Your task to perform on an android device: star an email in the gmail app Image 0: 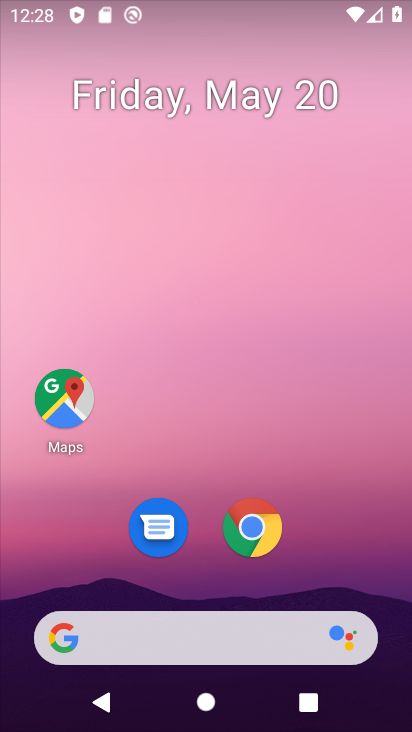
Step 0: drag from (396, 518) to (388, 247)
Your task to perform on an android device: star an email in the gmail app Image 1: 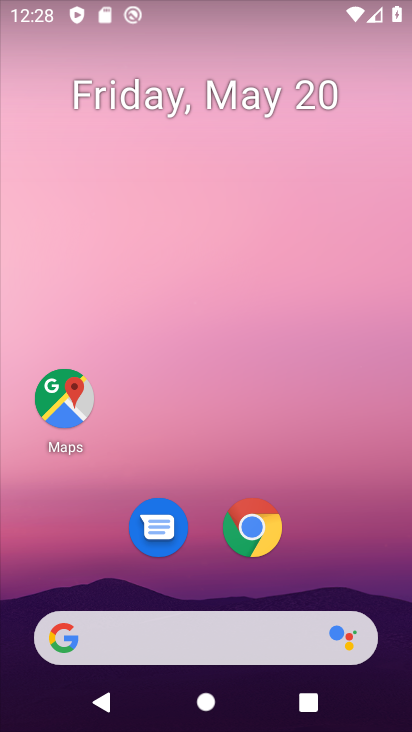
Step 1: drag from (397, 488) to (355, 206)
Your task to perform on an android device: star an email in the gmail app Image 2: 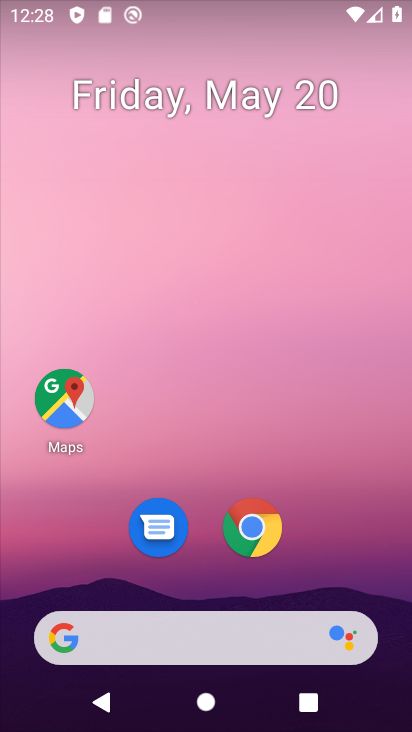
Step 2: drag from (390, 559) to (370, 241)
Your task to perform on an android device: star an email in the gmail app Image 3: 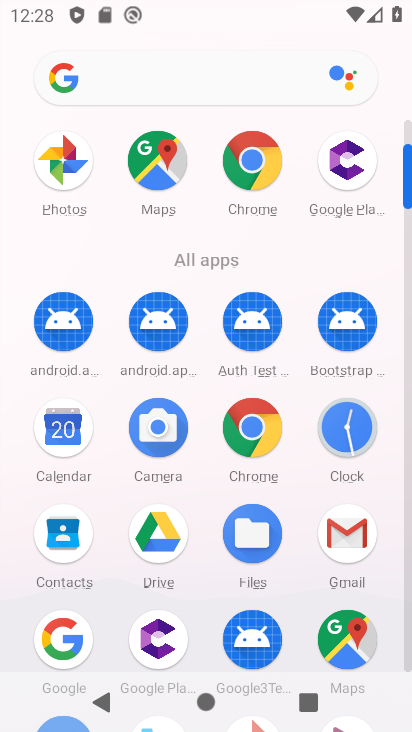
Step 3: click (349, 537)
Your task to perform on an android device: star an email in the gmail app Image 4: 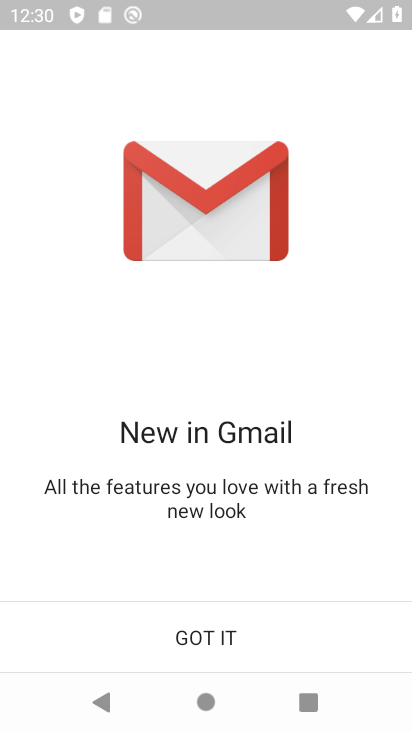
Step 4: click (203, 643)
Your task to perform on an android device: star an email in the gmail app Image 5: 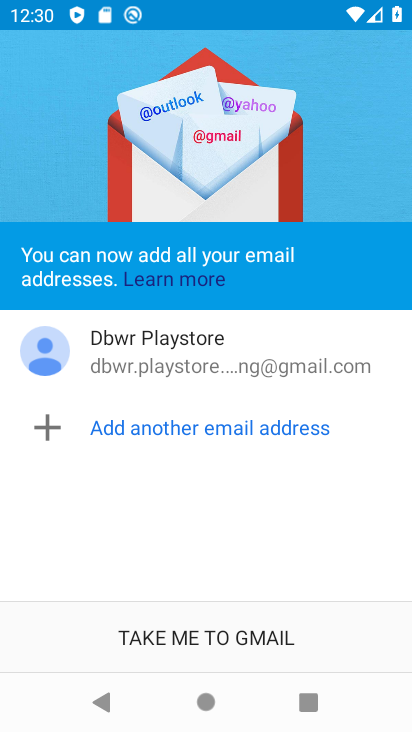
Step 5: click (204, 626)
Your task to perform on an android device: star an email in the gmail app Image 6: 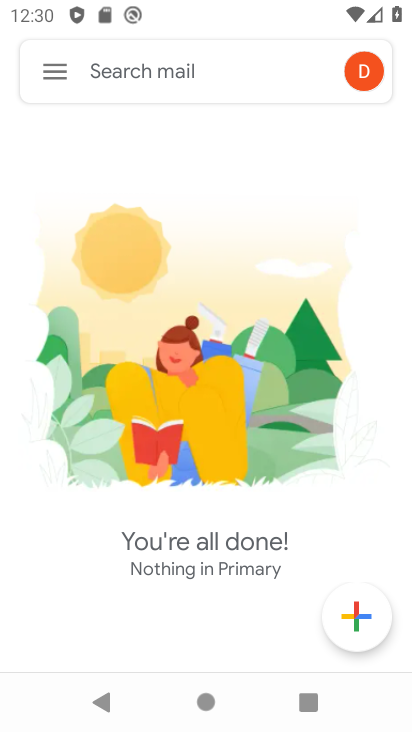
Step 6: click (49, 71)
Your task to perform on an android device: star an email in the gmail app Image 7: 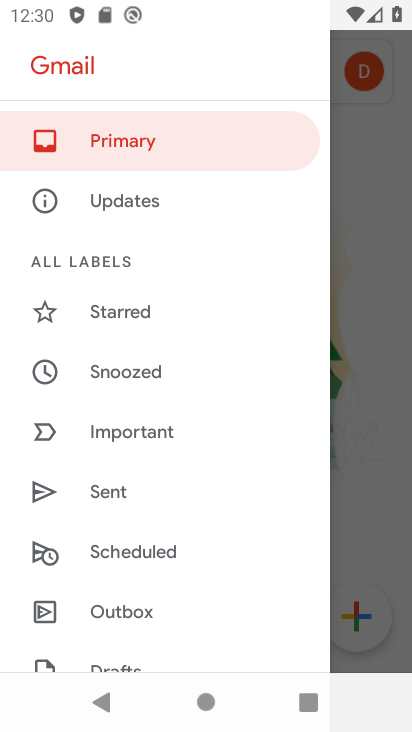
Step 7: click (107, 158)
Your task to perform on an android device: star an email in the gmail app Image 8: 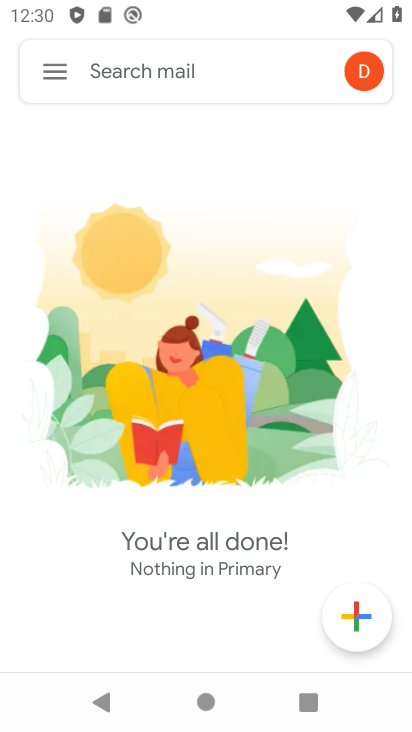
Step 8: task complete